Your task to perform on an android device: open chrome and create a bookmark for the current page Image 0: 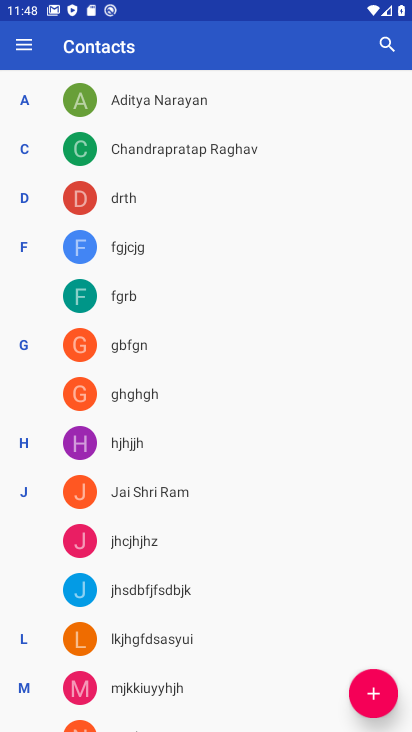
Step 0: press home button
Your task to perform on an android device: open chrome and create a bookmark for the current page Image 1: 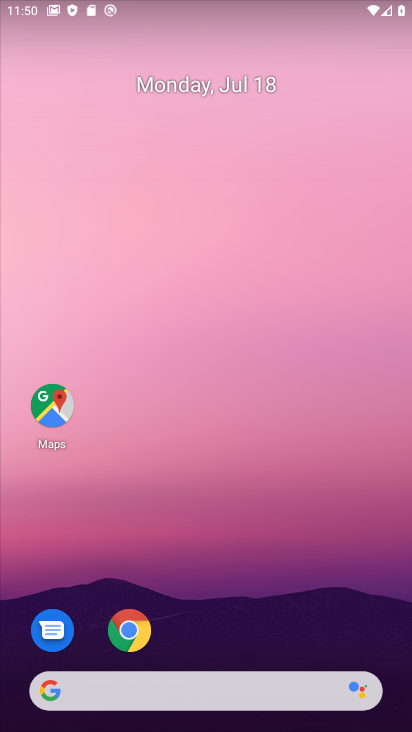
Step 1: click (147, 634)
Your task to perform on an android device: open chrome and create a bookmark for the current page Image 2: 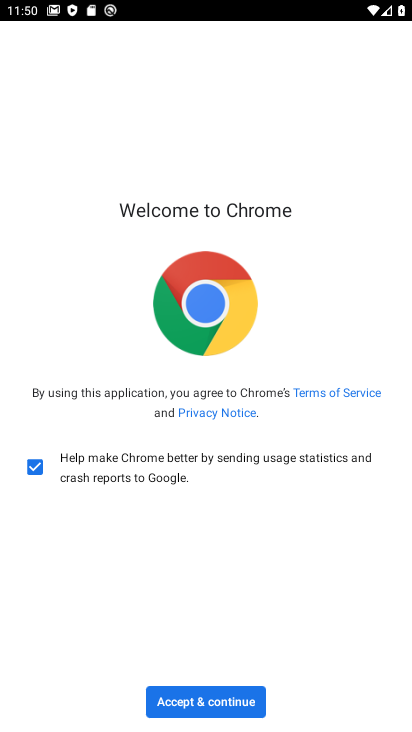
Step 2: click (217, 697)
Your task to perform on an android device: open chrome and create a bookmark for the current page Image 3: 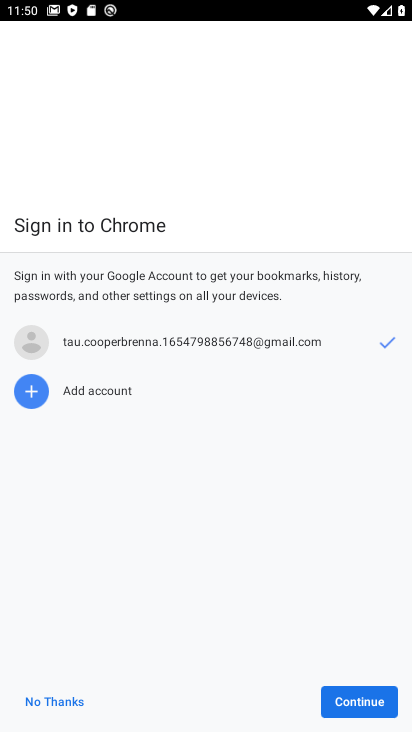
Step 3: click (344, 695)
Your task to perform on an android device: open chrome and create a bookmark for the current page Image 4: 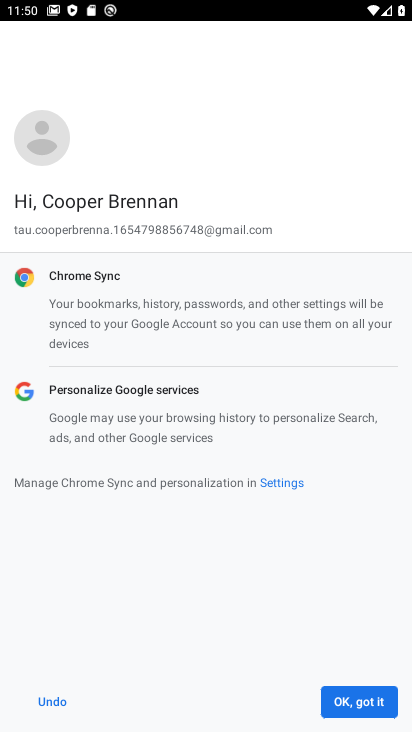
Step 4: click (365, 703)
Your task to perform on an android device: open chrome and create a bookmark for the current page Image 5: 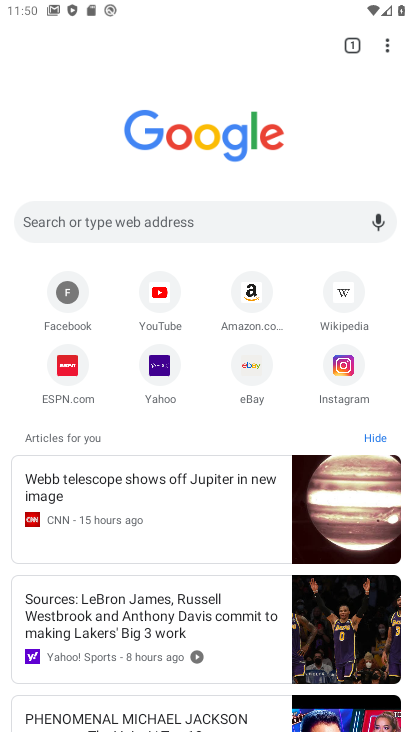
Step 5: click (386, 47)
Your task to perform on an android device: open chrome and create a bookmark for the current page Image 6: 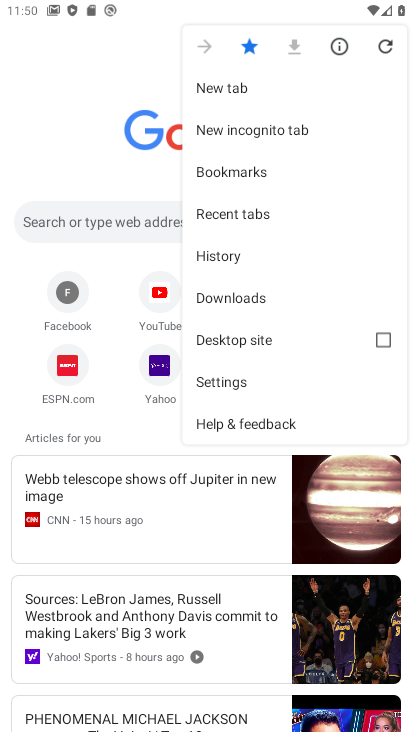
Step 6: task complete